Your task to perform on an android device: set an alarm Image 0: 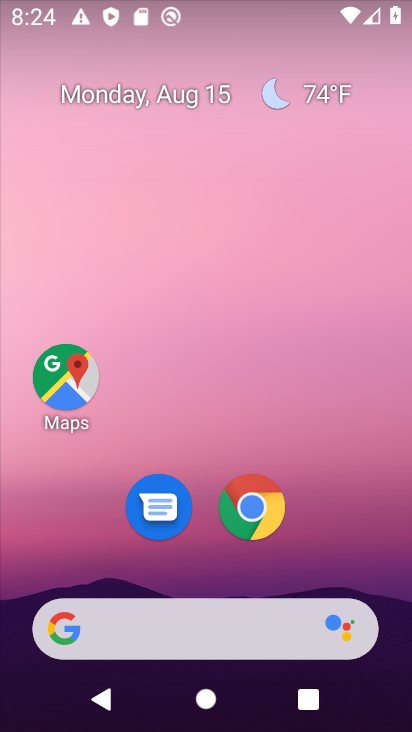
Step 0: drag from (157, 534) to (224, 20)
Your task to perform on an android device: set an alarm Image 1: 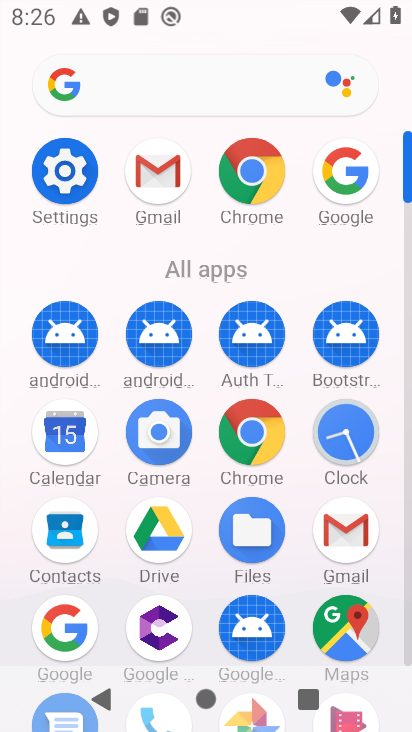
Step 1: click (360, 432)
Your task to perform on an android device: set an alarm Image 2: 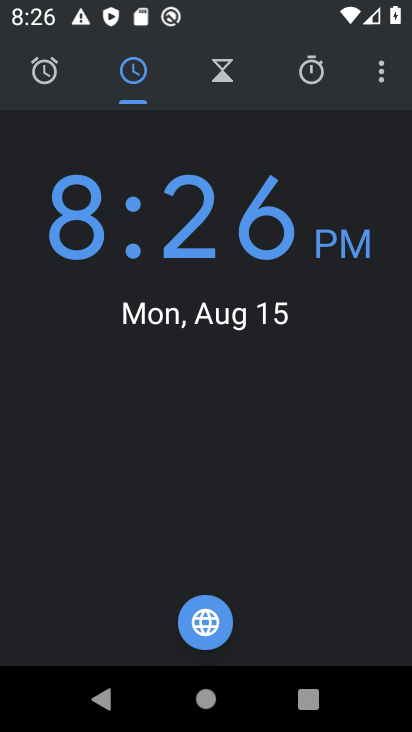
Step 2: click (45, 89)
Your task to perform on an android device: set an alarm Image 3: 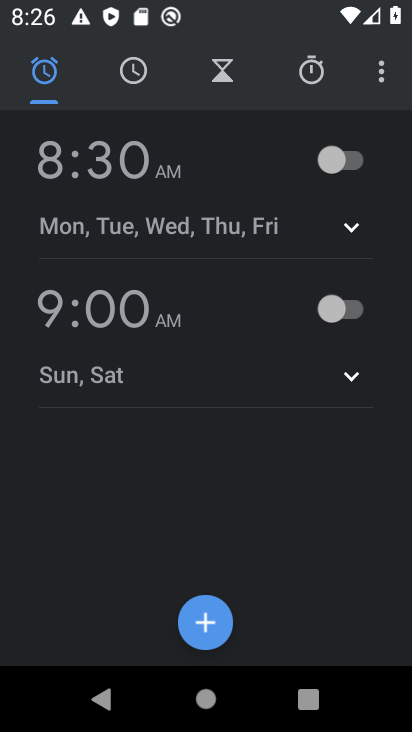
Step 3: click (351, 172)
Your task to perform on an android device: set an alarm Image 4: 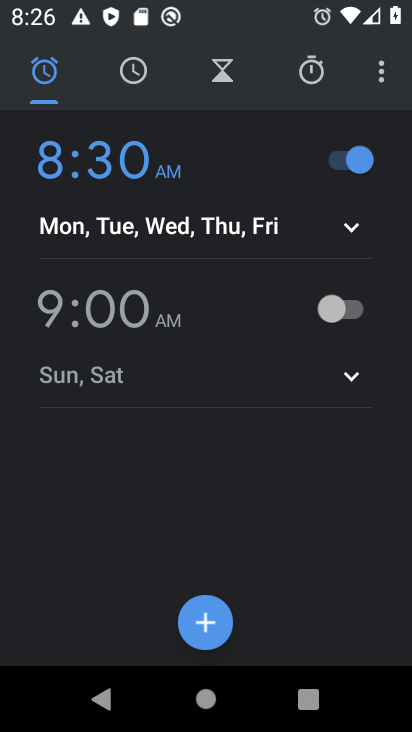
Step 4: task complete